Your task to perform on an android device: check data usage Image 0: 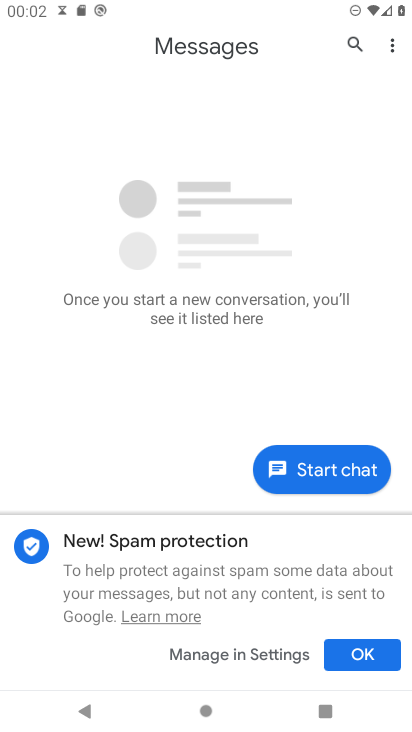
Step 0: press home button
Your task to perform on an android device: check data usage Image 1: 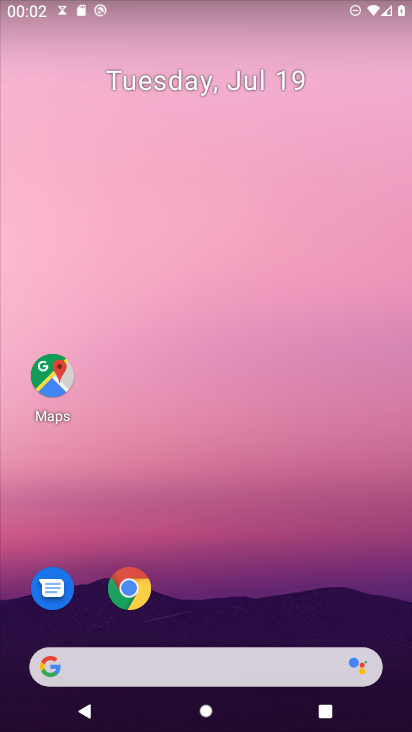
Step 1: drag from (312, 329) to (333, 108)
Your task to perform on an android device: check data usage Image 2: 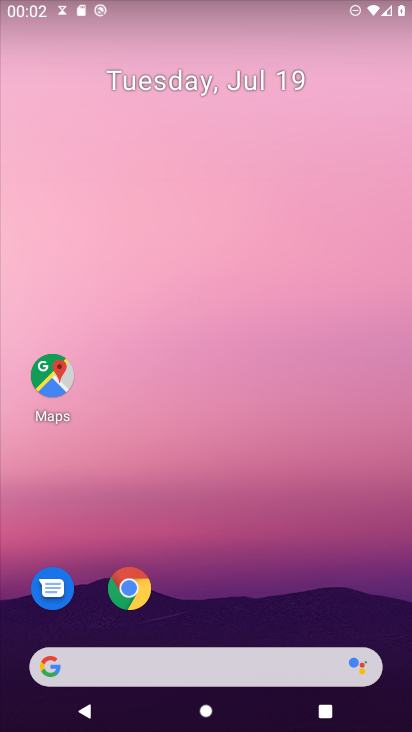
Step 2: drag from (230, 536) to (238, 4)
Your task to perform on an android device: check data usage Image 3: 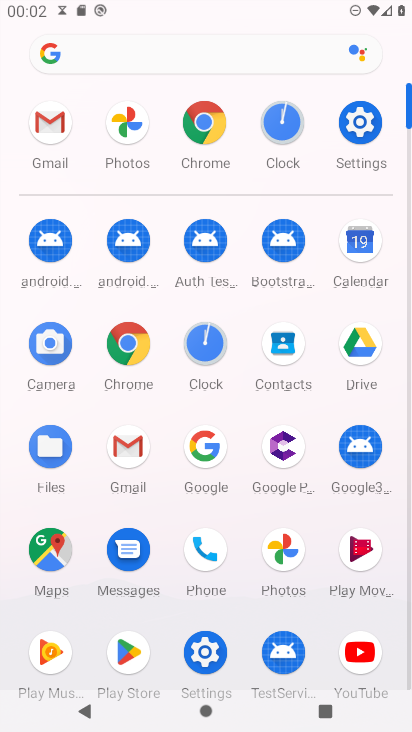
Step 3: click (361, 119)
Your task to perform on an android device: check data usage Image 4: 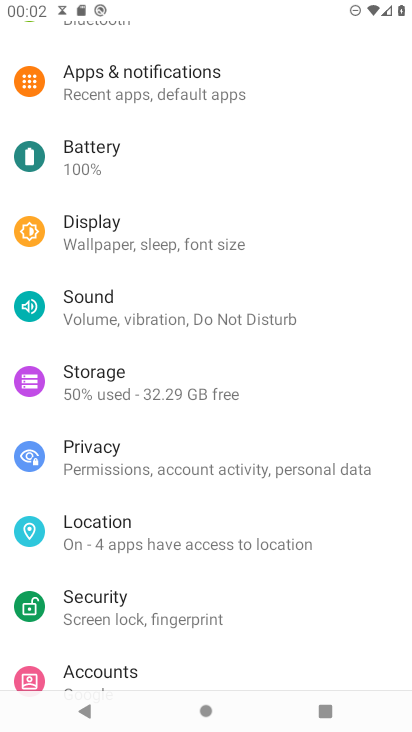
Step 4: drag from (168, 577) to (0, 691)
Your task to perform on an android device: check data usage Image 5: 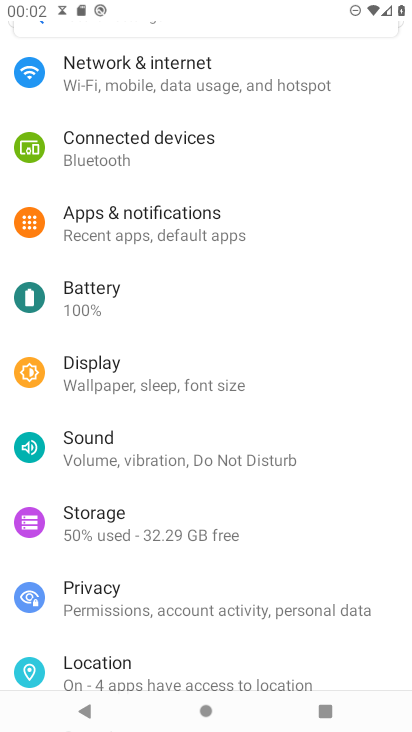
Step 5: click (194, 67)
Your task to perform on an android device: check data usage Image 6: 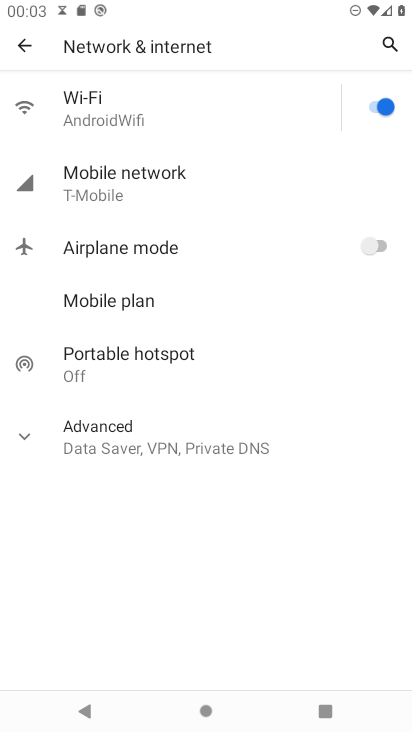
Step 6: click (150, 177)
Your task to perform on an android device: check data usage Image 7: 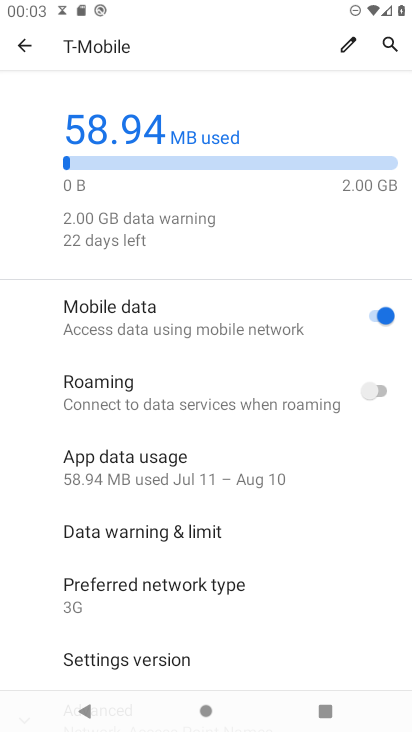
Step 7: task complete